Your task to perform on an android device: set the timer Image 0: 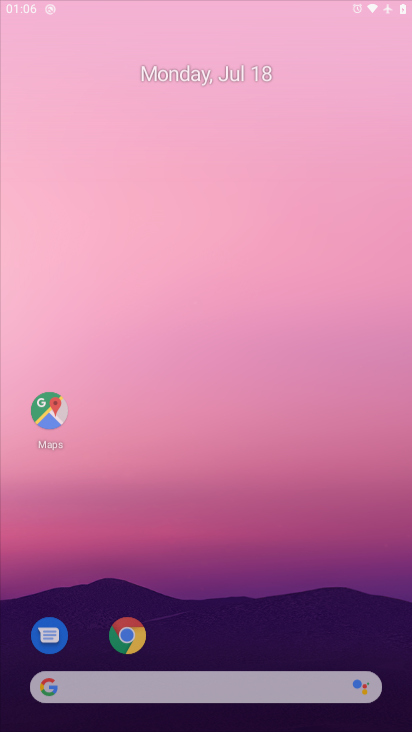
Step 0: press home button
Your task to perform on an android device: set the timer Image 1: 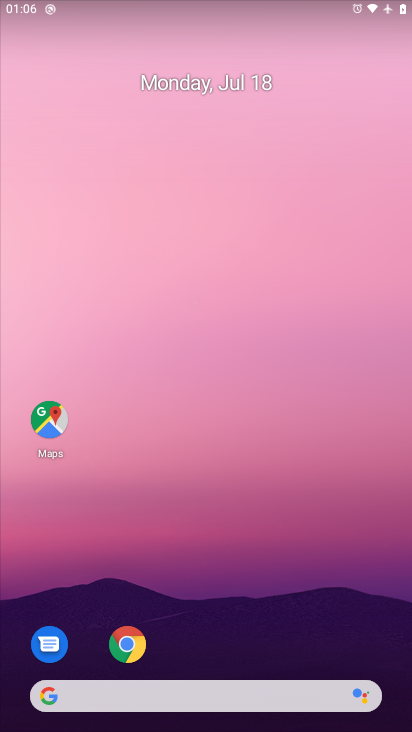
Step 1: drag from (214, 654) to (188, 106)
Your task to perform on an android device: set the timer Image 2: 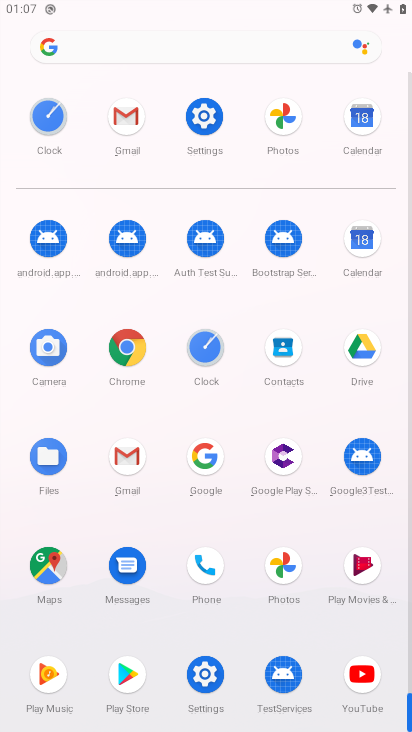
Step 2: click (49, 121)
Your task to perform on an android device: set the timer Image 3: 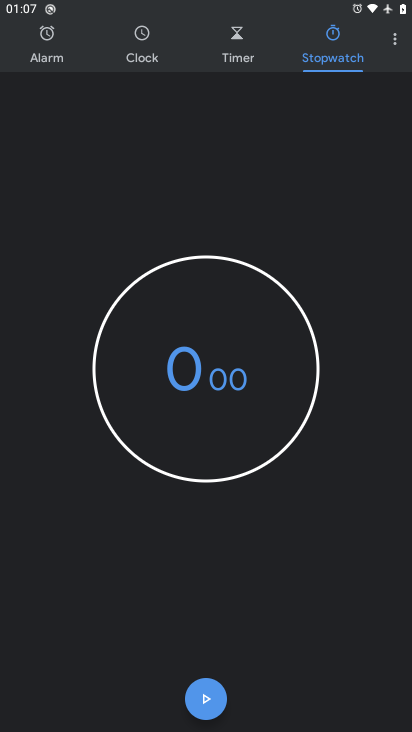
Step 3: click (238, 31)
Your task to perform on an android device: set the timer Image 4: 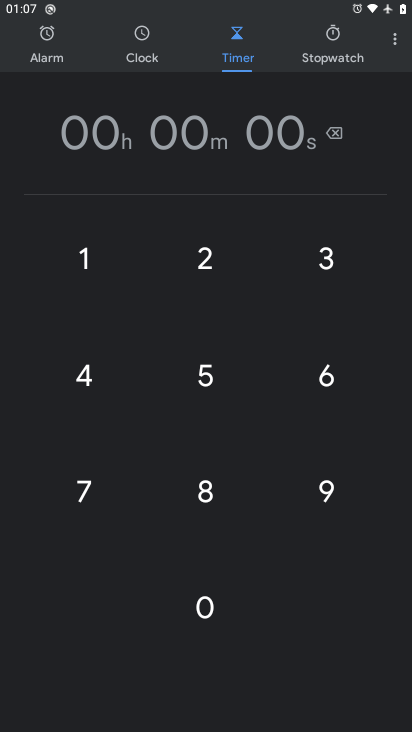
Step 4: click (195, 252)
Your task to perform on an android device: set the timer Image 5: 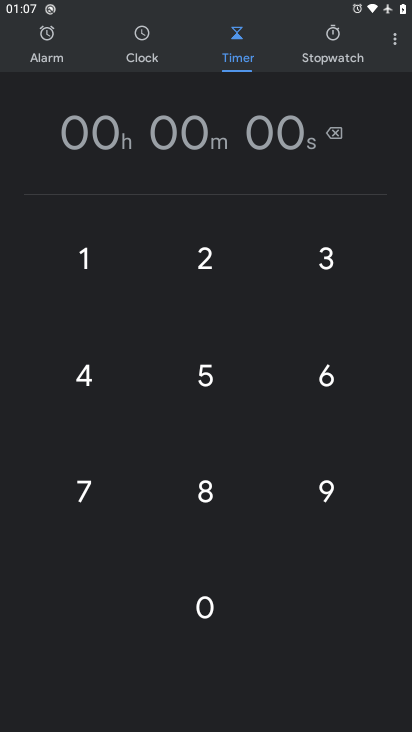
Step 5: click (195, 252)
Your task to perform on an android device: set the timer Image 6: 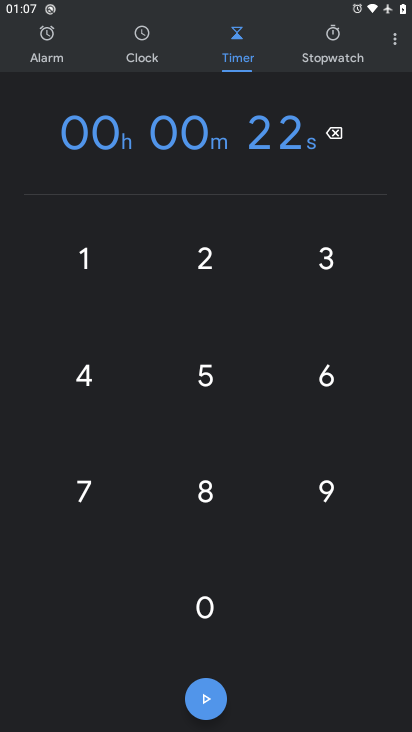
Step 6: click (222, 372)
Your task to perform on an android device: set the timer Image 7: 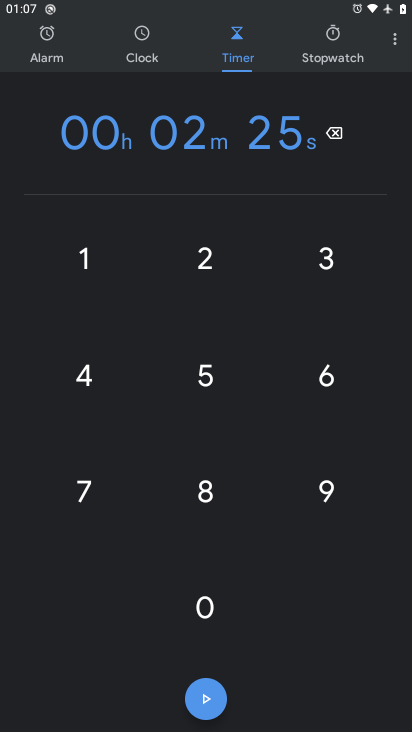
Step 7: click (94, 363)
Your task to perform on an android device: set the timer Image 8: 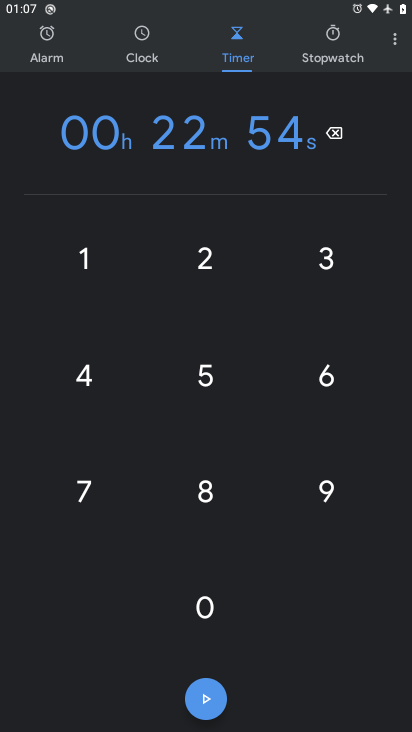
Step 8: click (327, 491)
Your task to perform on an android device: set the timer Image 9: 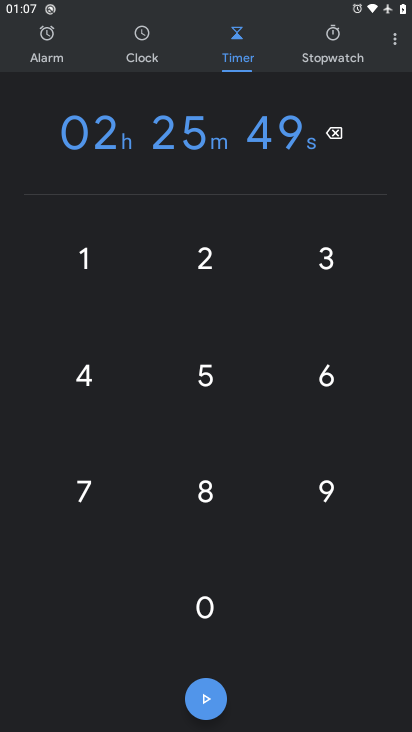
Step 9: click (211, 469)
Your task to perform on an android device: set the timer Image 10: 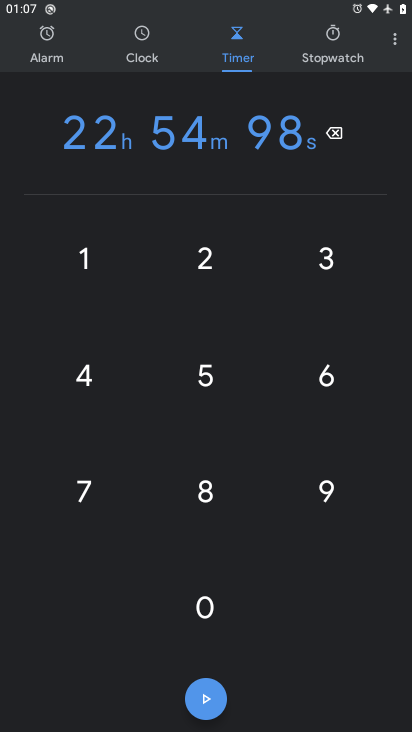
Step 10: click (210, 696)
Your task to perform on an android device: set the timer Image 11: 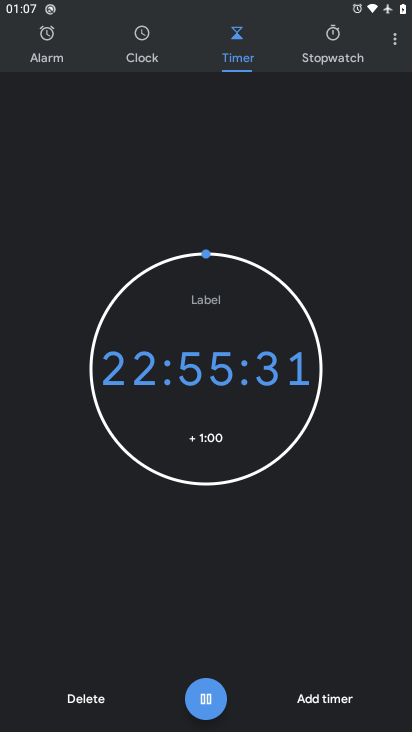
Step 11: task complete